Your task to perform on an android device: turn on the 24-hour format for clock Image 0: 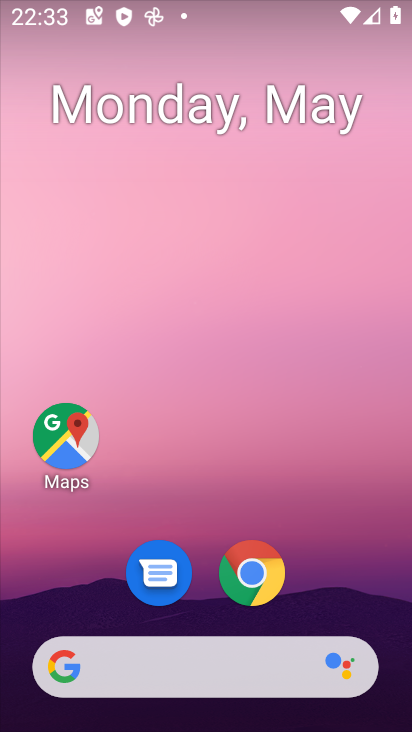
Step 0: drag from (374, 592) to (282, 6)
Your task to perform on an android device: turn on the 24-hour format for clock Image 1: 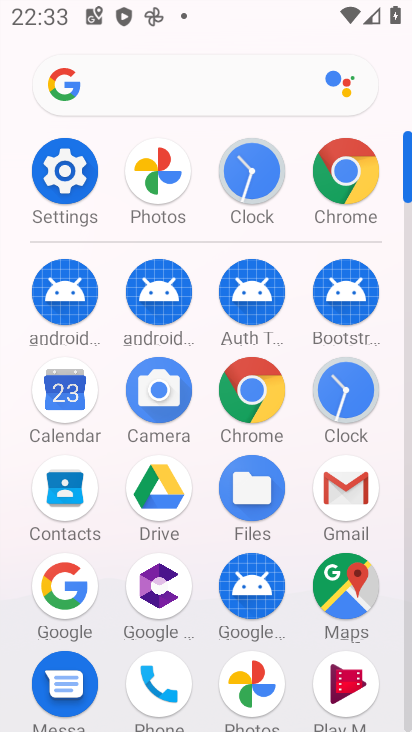
Step 1: click (335, 364)
Your task to perform on an android device: turn on the 24-hour format for clock Image 2: 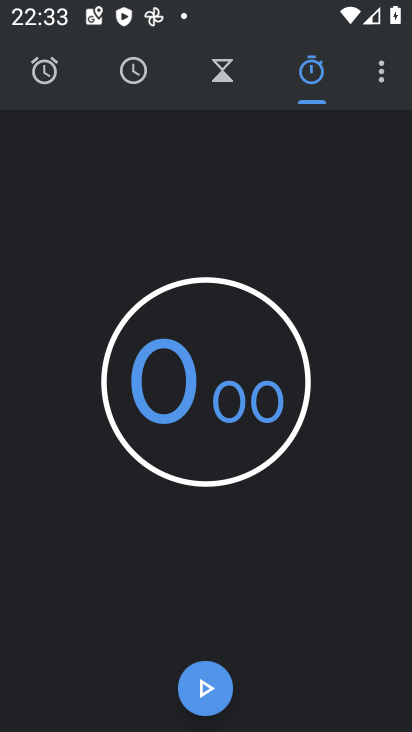
Step 2: click (365, 83)
Your task to perform on an android device: turn on the 24-hour format for clock Image 3: 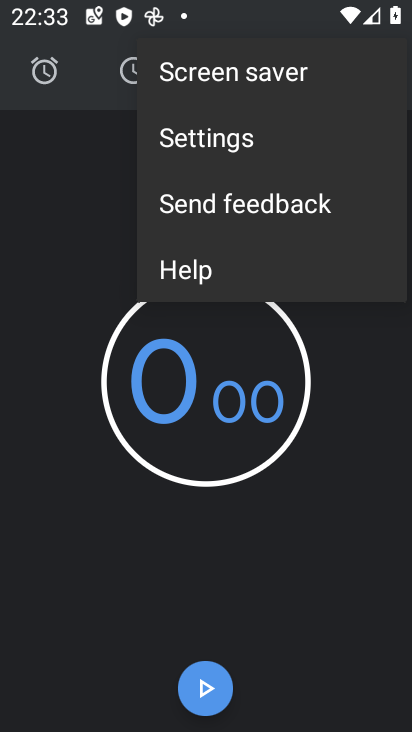
Step 3: click (273, 155)
Your task to perform on an android device: turn on the 24-hour format for clock Image 4: 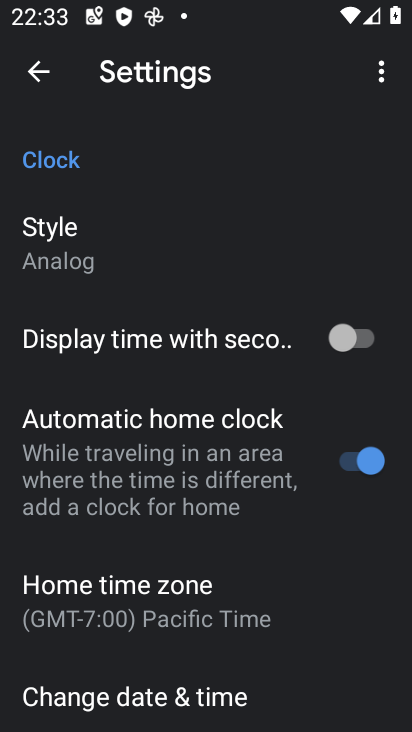
Step 4: drag from (179, 583) to (119, 62)
Your task to perform on an android device: turn on the 24-hour format for clock Image 5: 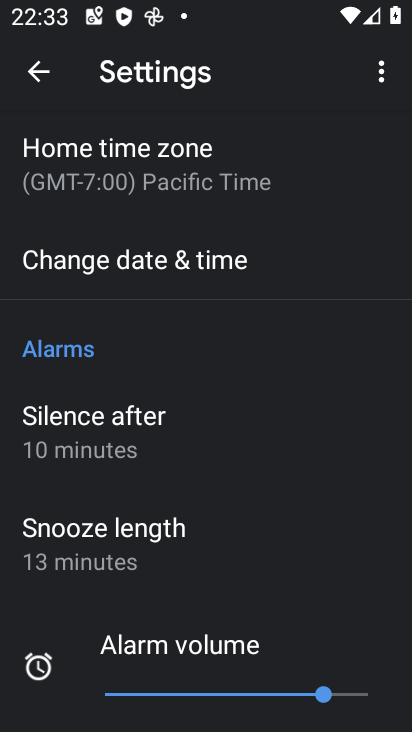
Step 5: click (227, 276)
Your task to perform on an android device: turn on the 24-hour format for clock Image 6: 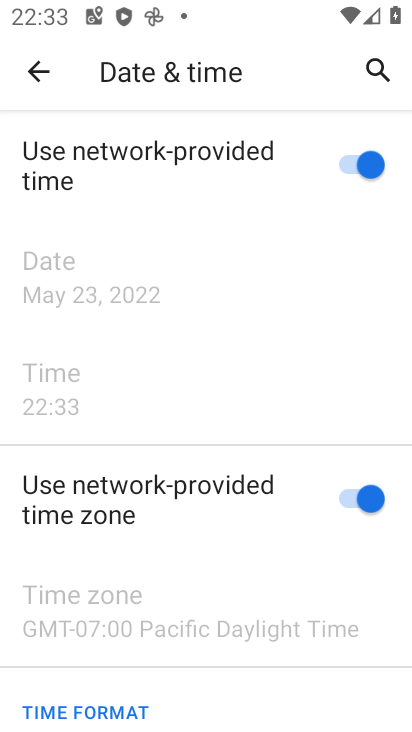
Step 6: drag from (199, 580) to (194, 210)
Your task to perform on an android device: turn on the 24-hour format for clock Image 7: 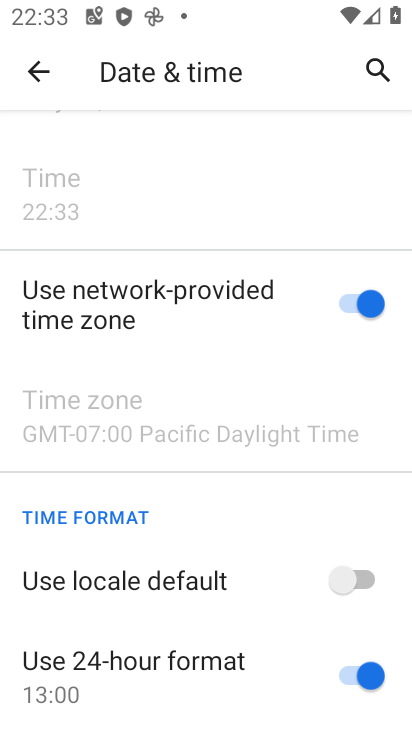
Step 7: click (202, 670)
Your task to perform on an android device: turn on the 24-hour format for clock Image 8: 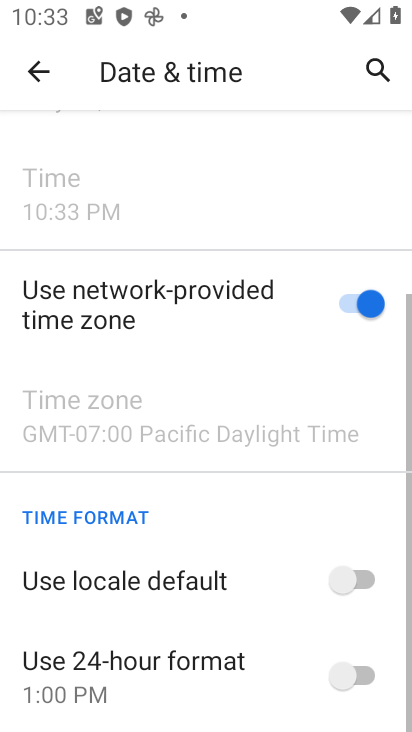
Step 8: task complete